Your task to perform on an android device: Open Youtube and go to "Your channel" Image 0: 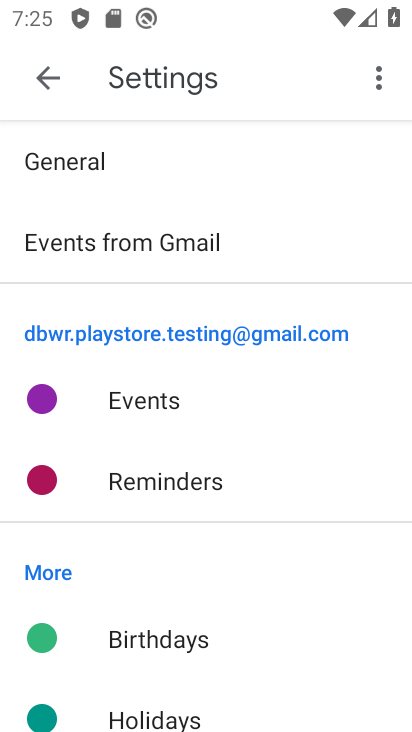
Step 0: press home button
Your task to perform on an android device: Open Youtube and go to "Your channel" Image 1: 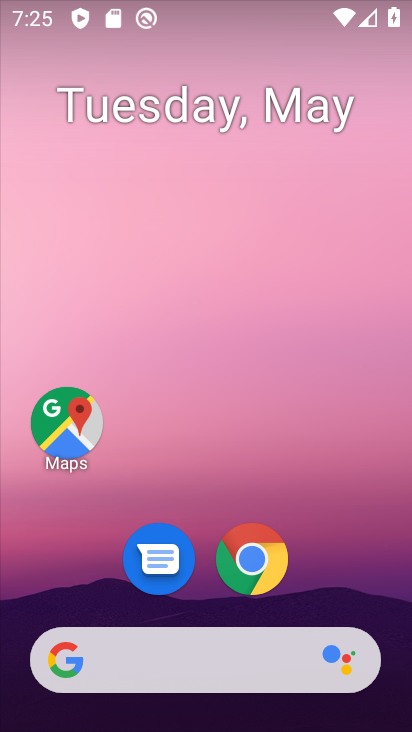
Step 1: drag from (394, 673) to (258, 43)
Your task to perform on an android device: Open Youtube and go to "Your channel" Image 2: 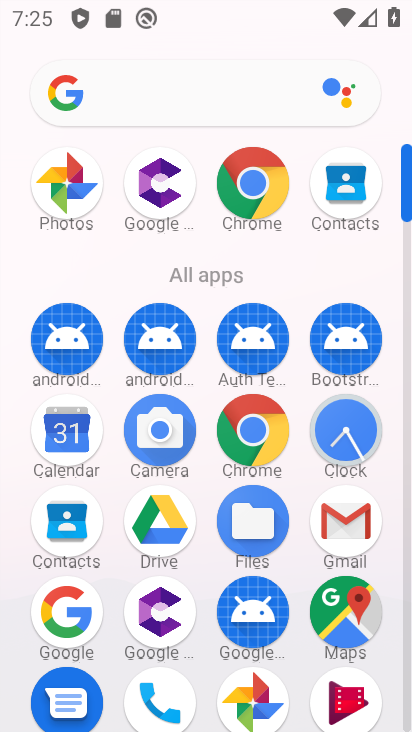
Step 2: drag from (309, 655) to (232, 158)
Your task to perform on an android device: Open Youtube and go to "Your channel" Image 3: 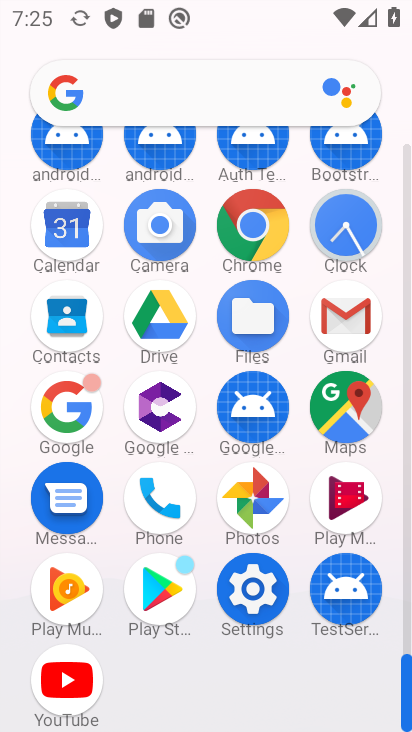
Step 3: click (81, 689)
Your task to perform on an android device: Open Youtube and go to "Your channel" Image 4: 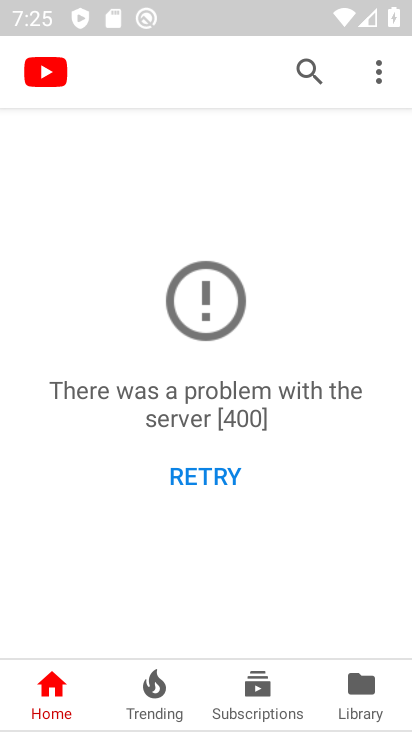
Step 4: click (208, 501)
Your task to perform on an android device: Open Youtube and go to "Your channel" Image 5: 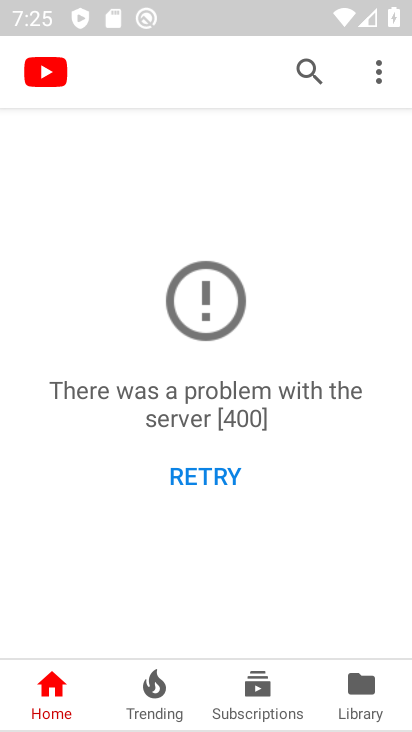
Step 5: click (213, 484)
Your task to perform on an android device: Open Youtube and go to "Your channel" Image 6: 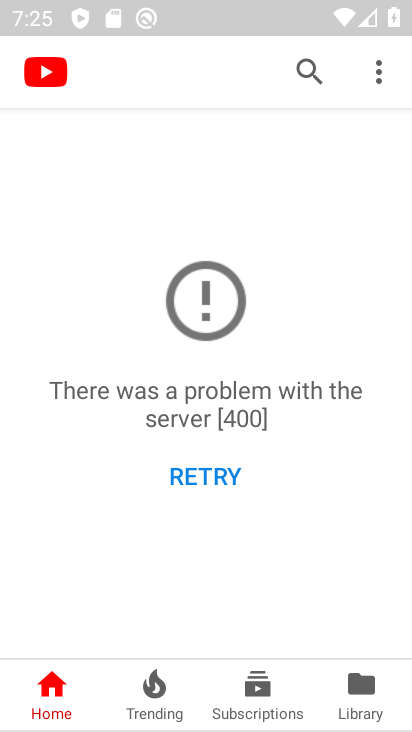
Step 6: task complete